Your task to perform on an android device: toggle airplane mode Image 0: 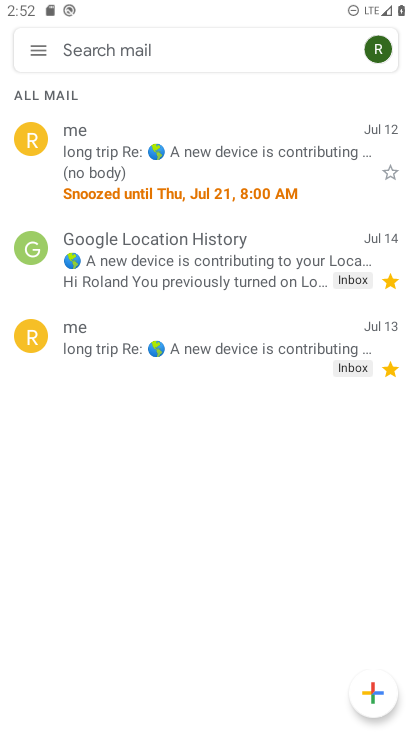
Step 0: press home button
Your task to perform on an android device: toggle airplane mode Image 1: 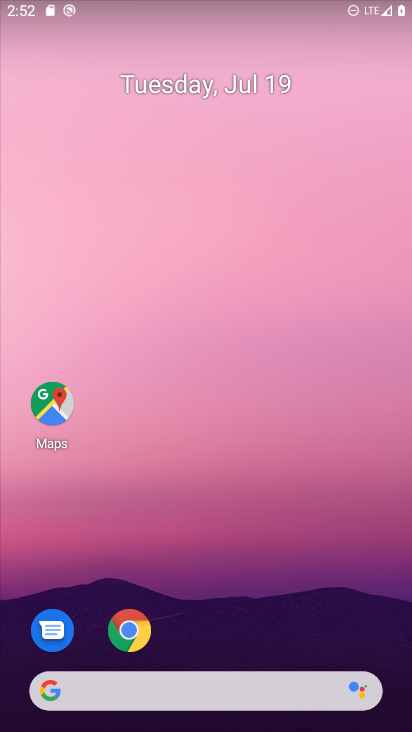
Step 1: drag from (322, 624) to (289, 87)
Your task to perform on an android device: toggle airplane mode Image 2: 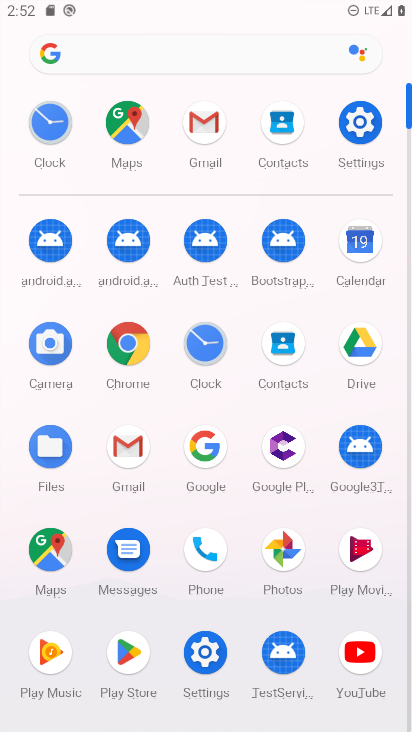
Step 2: click (205, 649)
Your task to perform on an android device: toggle airplane mode Image 3: 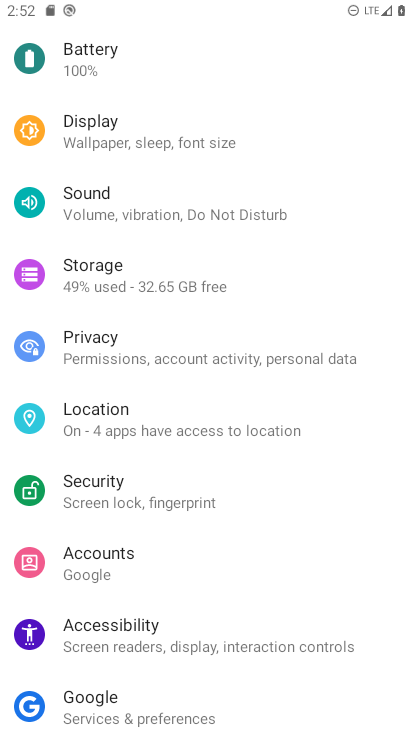
Step 3: drag from (302, 109) to (296, 345)
Your task to perform on an android device: toggle airplane mode Image 4: 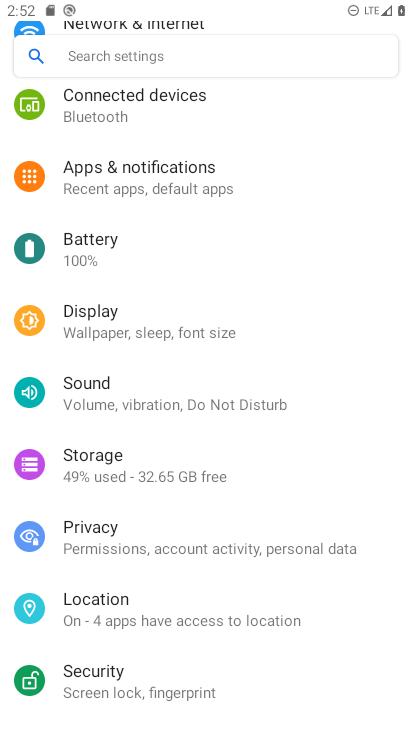
Step 4: drag from (291, 152) to (290, 399)
Your task to perform on an android device: toggle airplane mode Image 5: 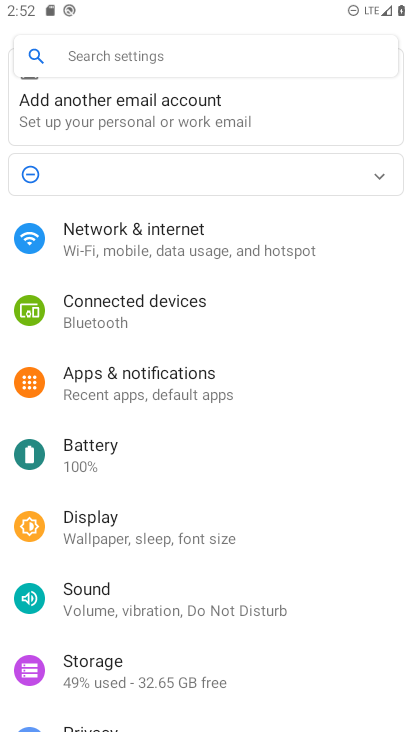
Step 5: click (81, 226)
Your task to perform on an android device: toggle airplane mode Image 6: 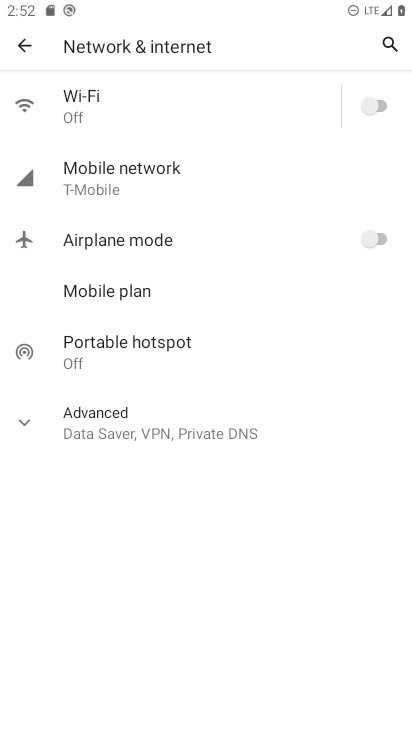
Step 6: click (383, 237)
Your task to perform on an android device: toggle airplane mode Image 7: 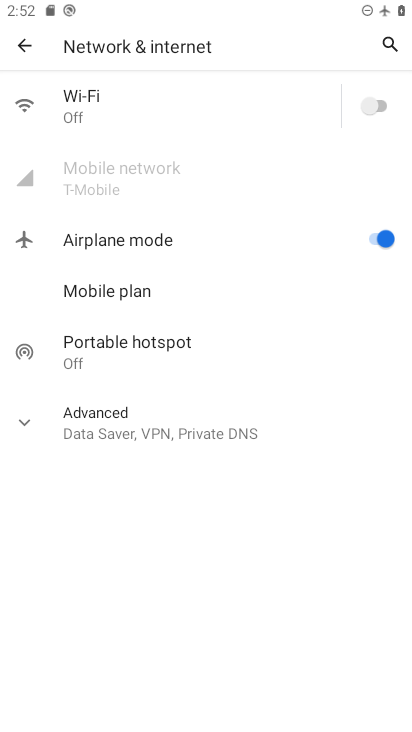
Step 7: task complete